Your task to perform on an android device: Searchfor good French restaurants Image 0: 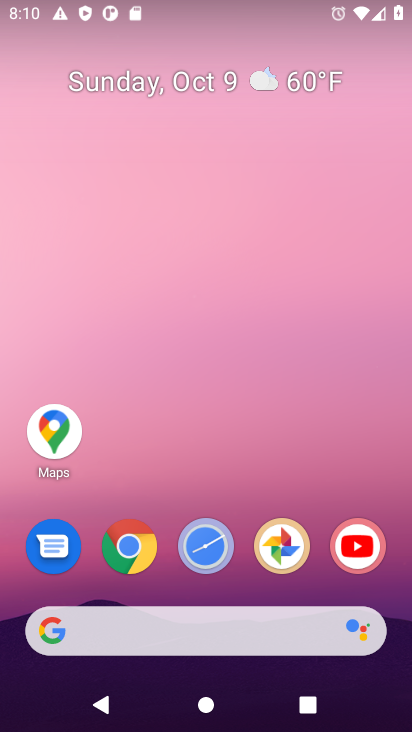
Step 0: click (122, 557)
Your task to perform on an android device: Searchfor good French restaurants Image 1: 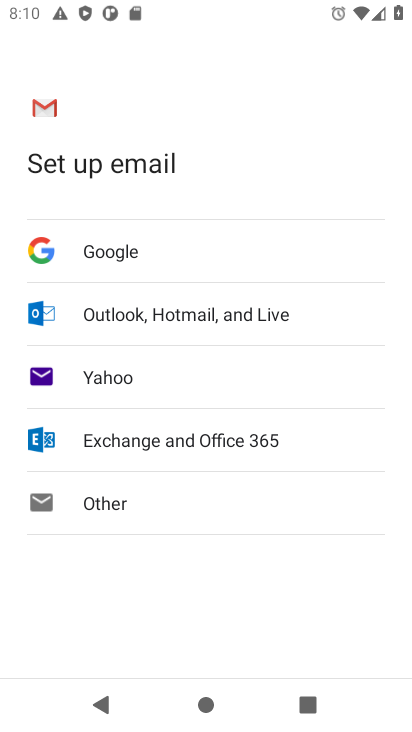
Step 1: press home button
Your task to perform on an android device: Searchfor good French restaurants Image 2: 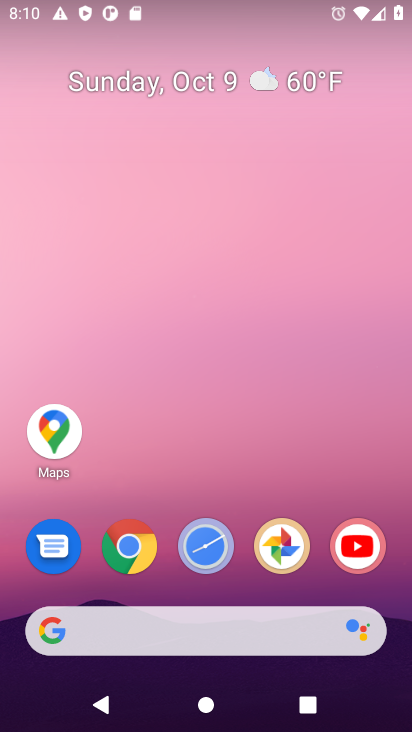
Step 2: click (142, 548)
Your task to perform on an android device: Searchfor good French restaurants Image 3: 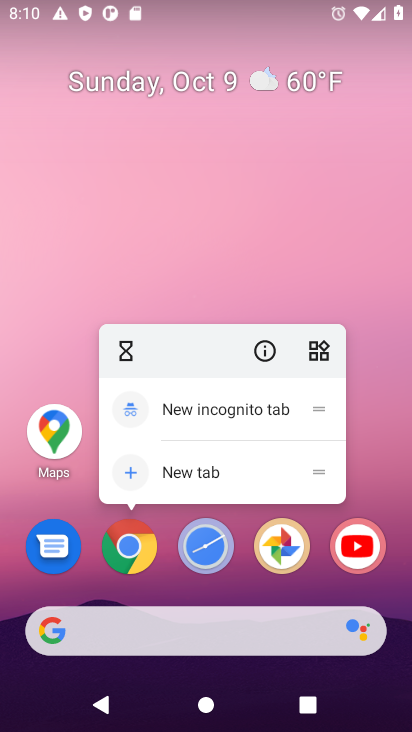
Step 3: click (139, 558)
Your task to perform on an android device: Searchfor good French restaurants Image 4: 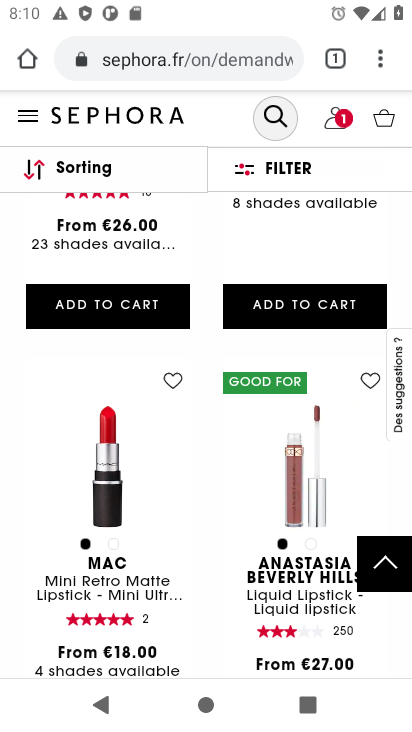
Step 4: click (155, 58)
Your task to perform on an android device: Searchfor good French restaurants Image 5: 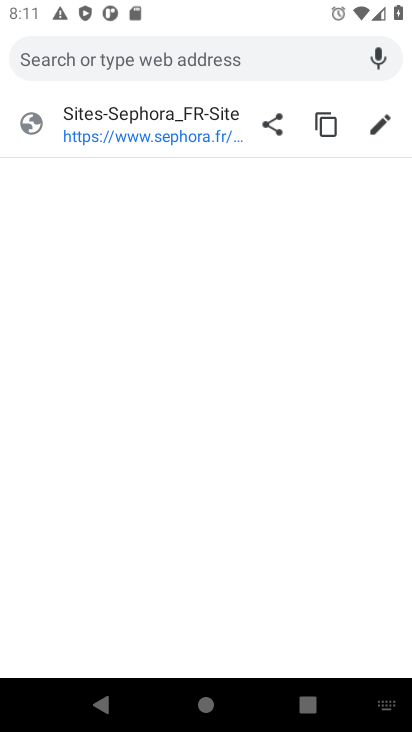
Step 5: type "good french restaurants"
Your task to perform on an android device: Searchfor good French restaurants Image 6: 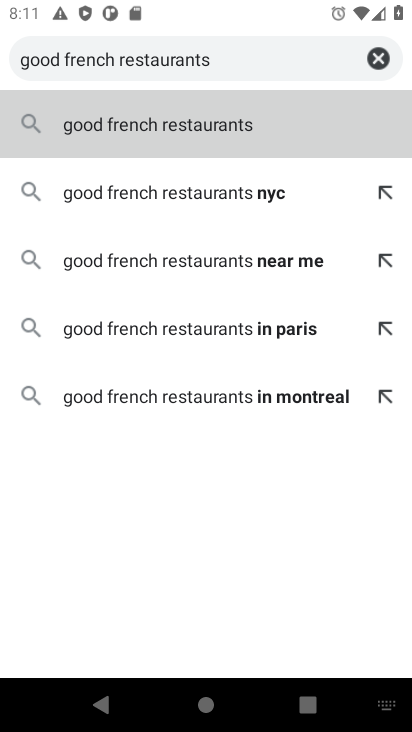
Step 6: click (149, 123)
Your task to perform on an android device: Searchfor good French restaurants Image 7: 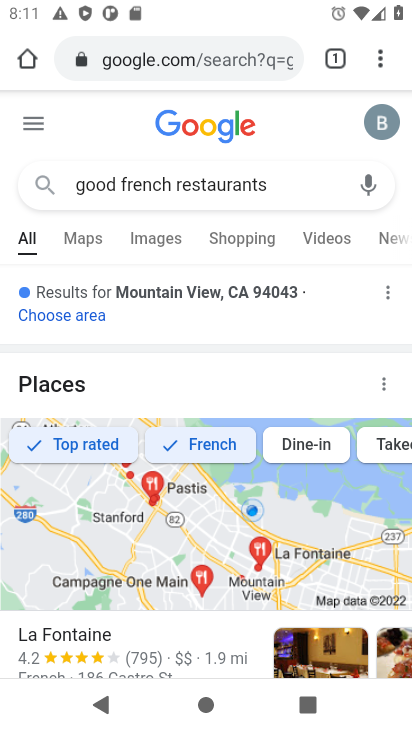
Step 7: drag from (229, 532) to (224, 233)
Your task to perform on an android device: Searchfor good French restaurants Image 8: 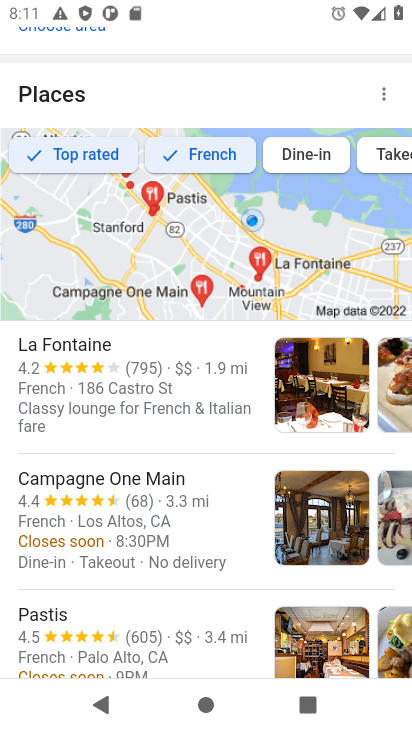
Step 8: drag from (258, 581) to (238, 315)
Your task to perform on an android device: Searchfor good French restaurants Image 9: 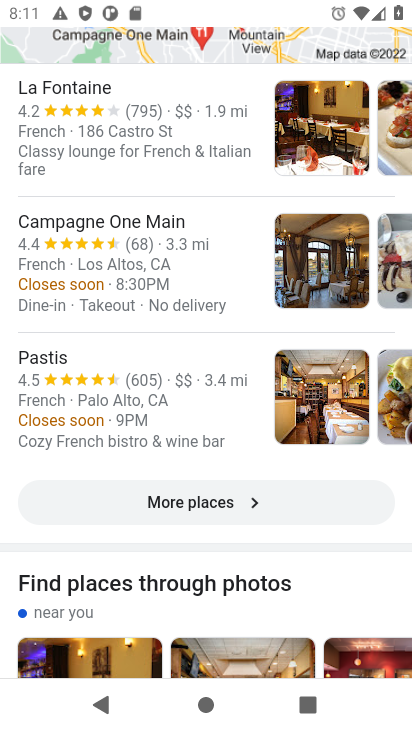
Step 9: drag from (244, 596) to (211, 296)
Your task to perform on an android device: Searchfor good French restaurants Image 10: 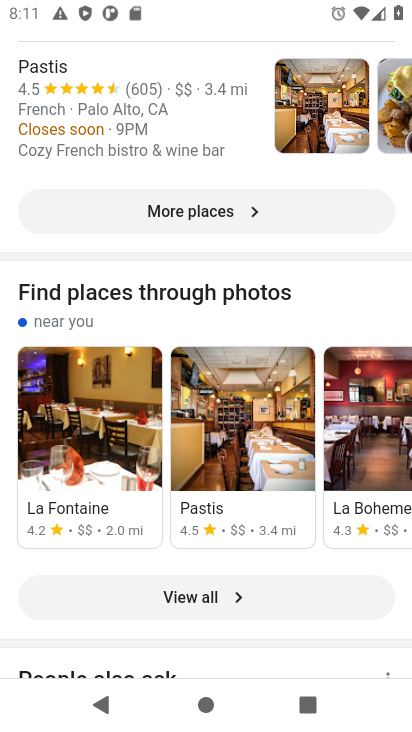
Step 10: drag from (243, 567) to (208, 313)
Your task to perform on an android device: Searchfor good French restaurants Image 11: 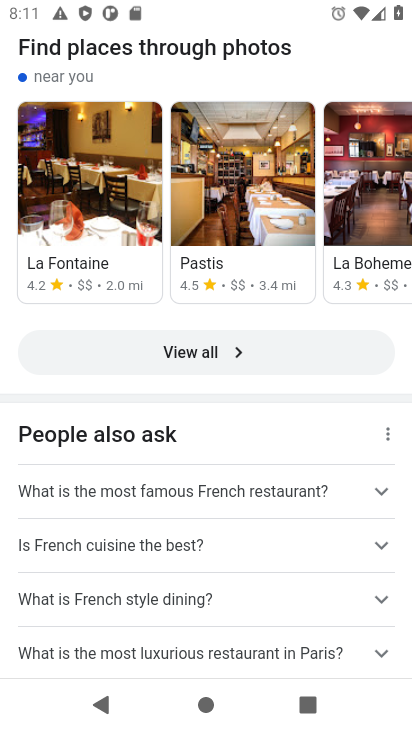
Step 11: drag from (240, 520) to (222, 341)
Your task to perform on an android device: Searchfor good French restaurants Image 12: 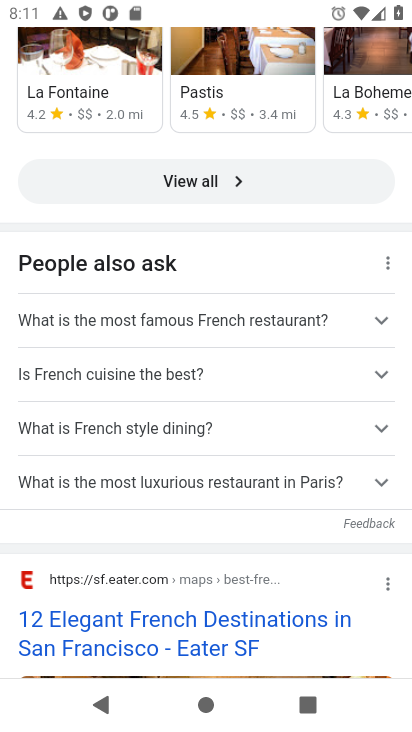
Step 12: drag from (279, 572) to (257, 269)
Your task to perform on an android device: Searchfor good French restaurants Image 13: 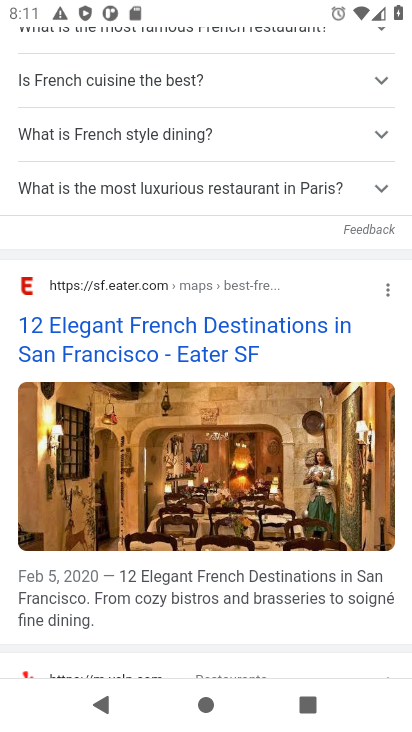
Step 13: drag from (290, 545) to (272, 357)
Your task to perform on an android device: Searchfor good French restaurants Image 14: 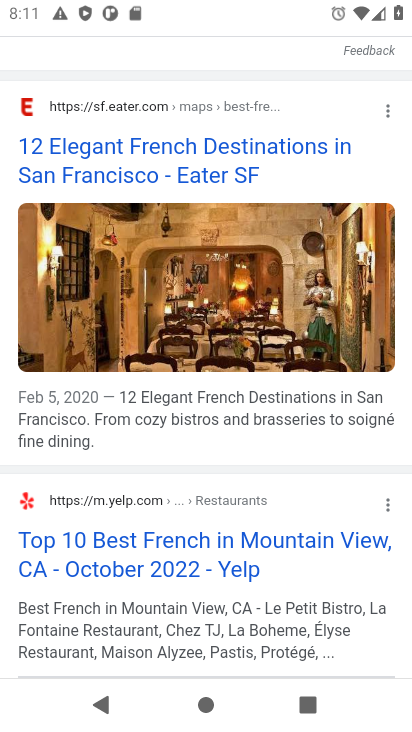
Step 14: drag from (288, 380) to (313, 620)
Your task to perform on an android device: Searchfor good French restaurants Image 15: 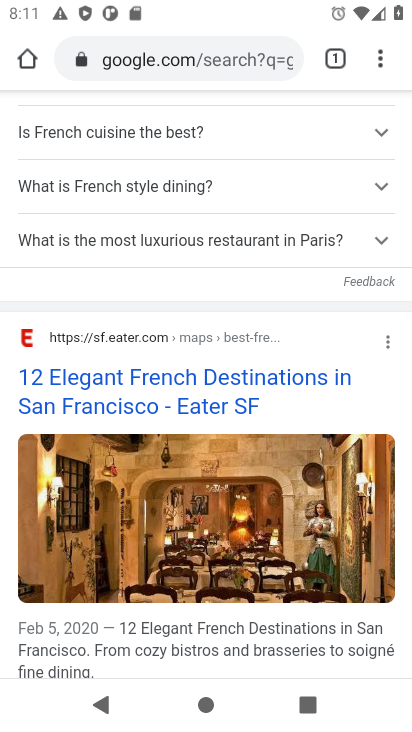
Step 15: click (198, 395)
Your task to perform on an android device: Searchfor good French restaurants Image 16: 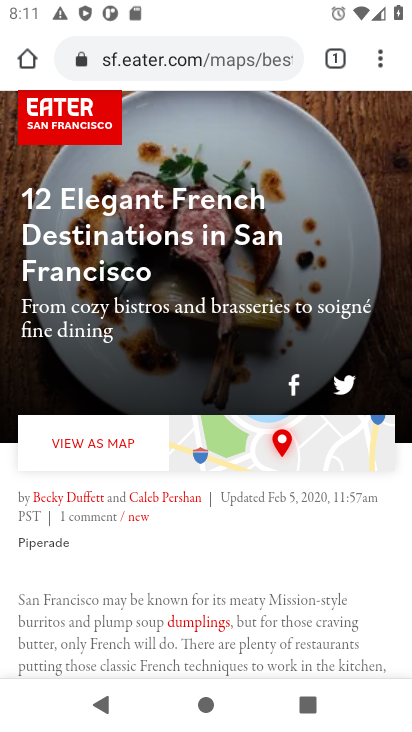
Step 16: task complete